Your task to perform on an android device: Open notification settings Image 0: 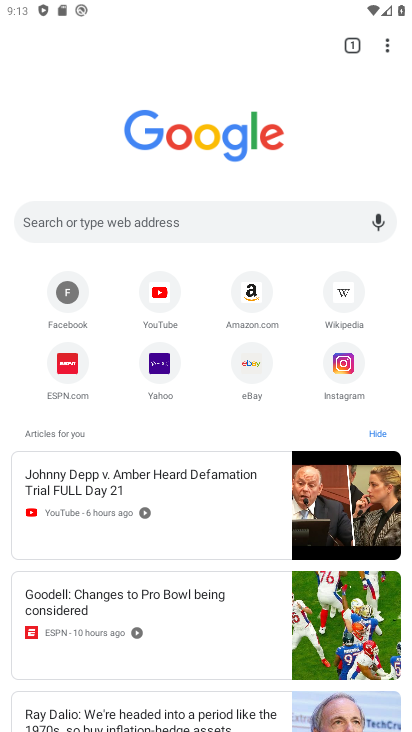
Step 0: press home button
Your task to perform on an android device: Open notification settings Image 1: 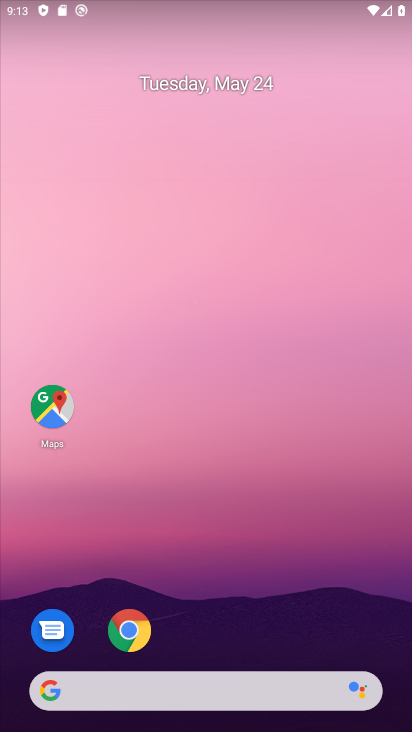
Step 1: drag from (224, 608) to (216, 174)
Your task to perform on an android device: Open notification settings Image 2: 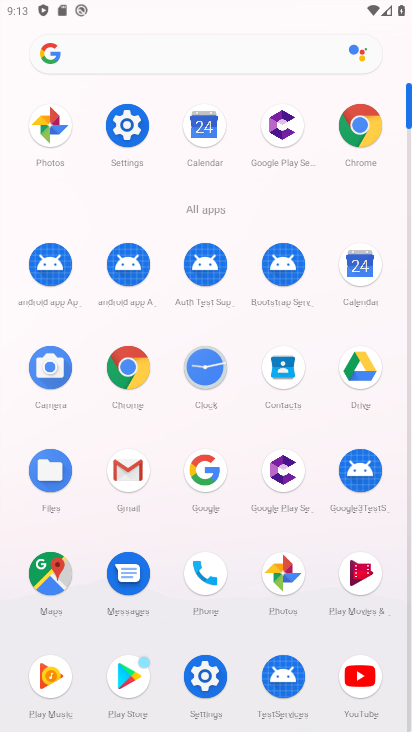
Step 2: click (128, 121)
Your task to perform on an android device: Open notification settings Image 3: 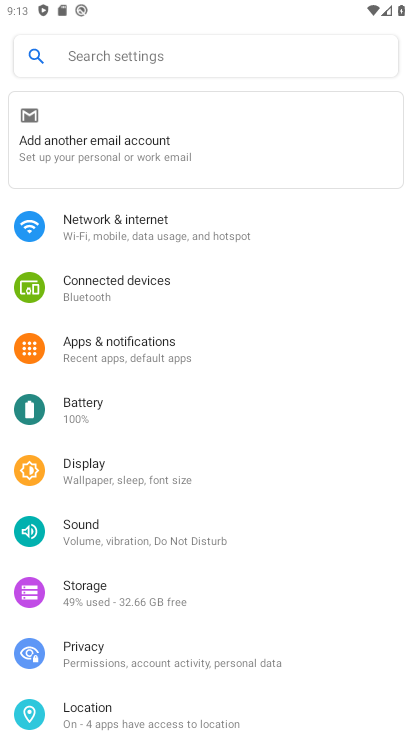
Step 3: click (145, 338)
Your task to perform on an android device: Open notification settings Image 4: 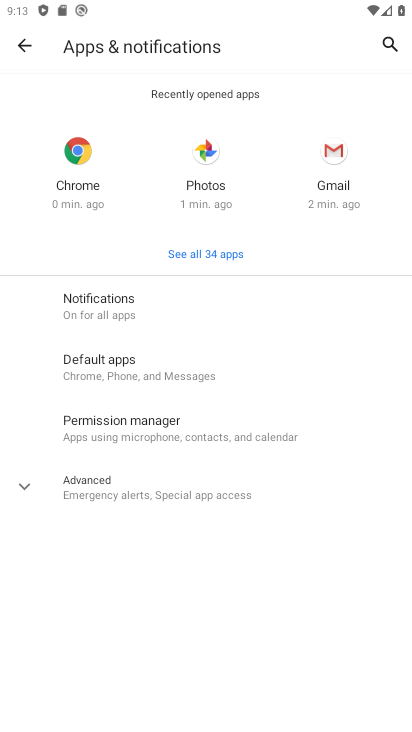
Step 4: click (150, 298)
Your task to perform on an android device: Open notification settings Image 5: 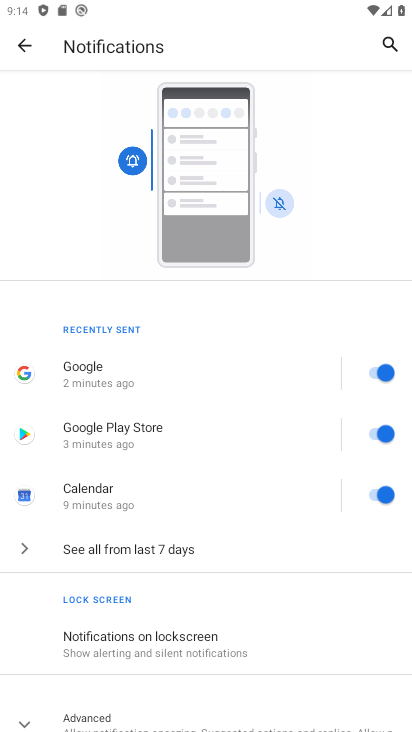
Step 5: drag from (234, 667) to (232, 312)
Your task to perform on an android device: Open notification settings Image 6: 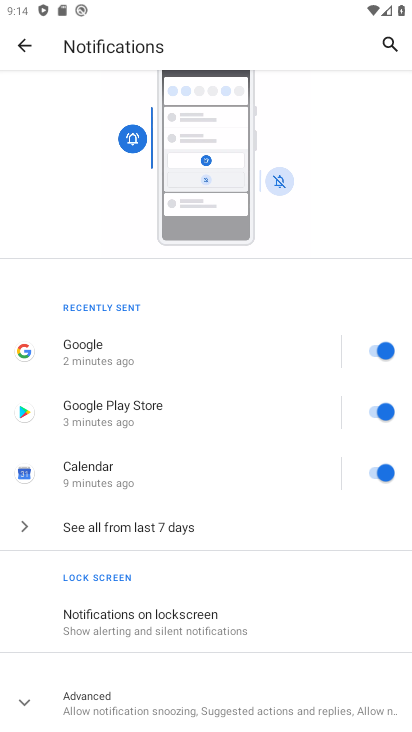
Step 6: click (41, 703)
Your task to perform on an android device: Open notification settings Image 7: 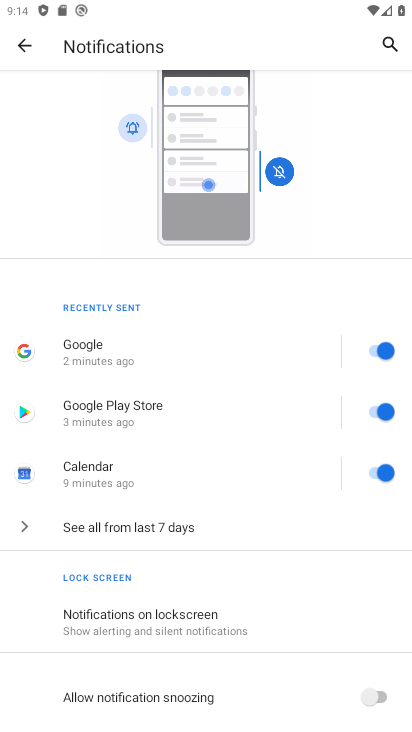
Step 7: task complete